Your task to perform on an android device: turn off translation in the chrome app Image 0: 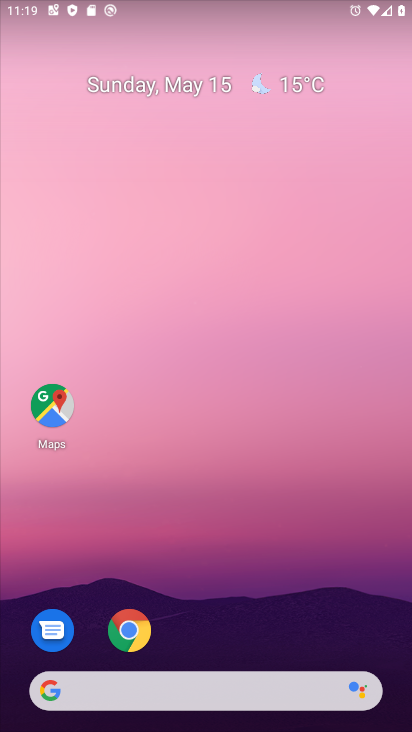
Step 0: click (131, 633)
Your task to perform on an android device: turn off translation in the chrome app Image 1: 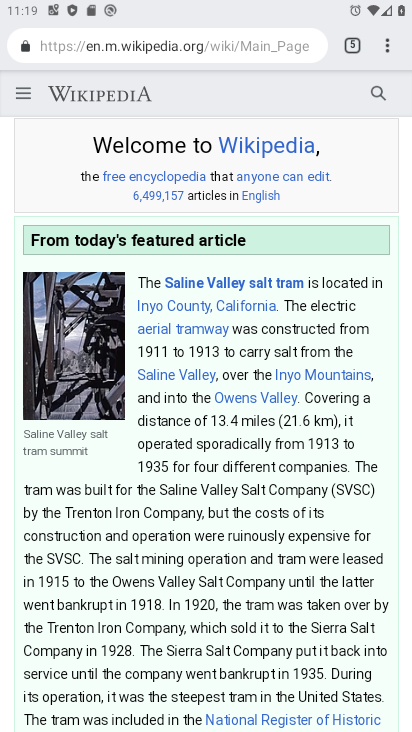
Step 1: click (390, 47)
Your task to perform on an android device: turn off translation in the chrome app Image 2: 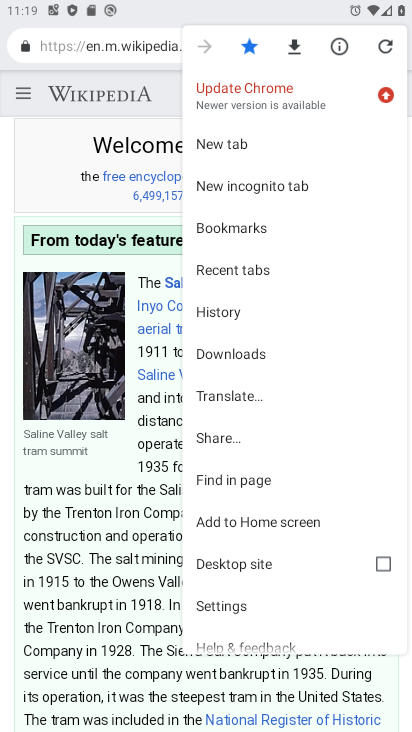
Step 2: click (229, 601)
Your task to perform on an android device: turn off translation in the chrome app Image 3: 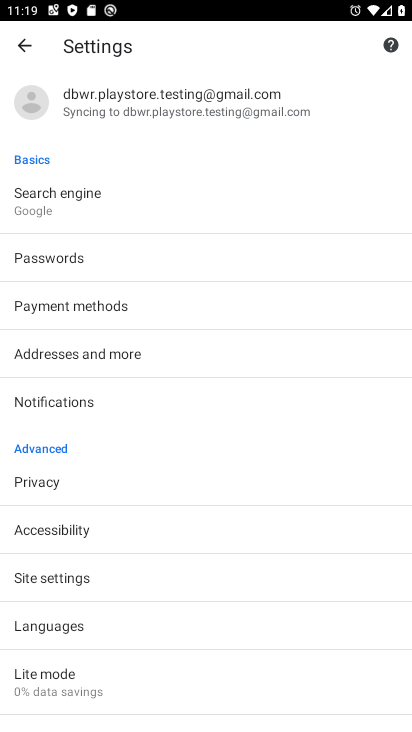
Step 3: drag from (74, 636) to (77, 405)
Your task to perform on an android device: turn off translation in the chrome app Image 4: 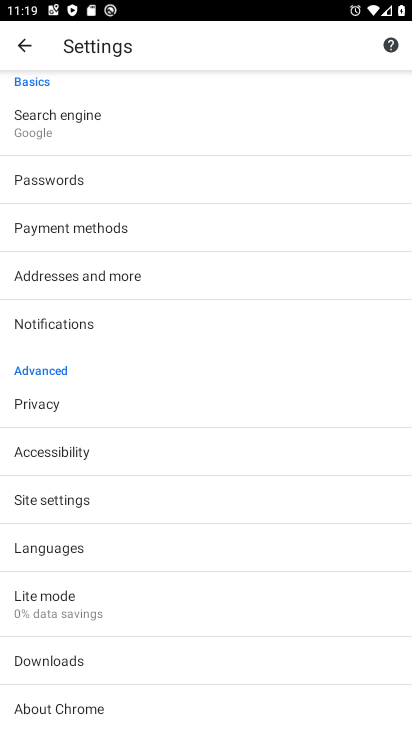
Step 4: click (98, 540)
Your task to perform on an android device: turn off translation in the chrome app Image 5: 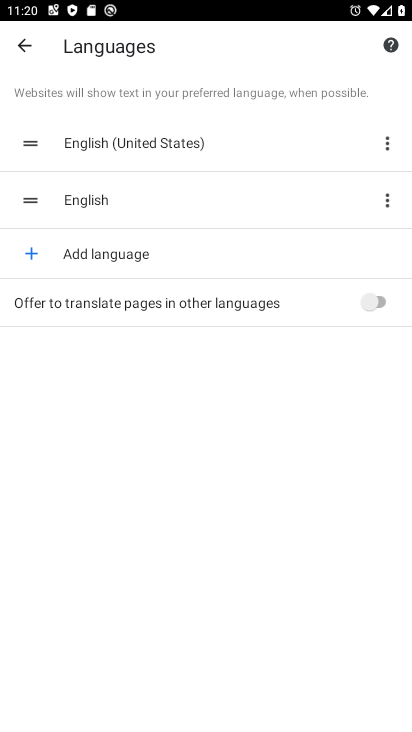
Step 5: task complete